Your task to perform on an android device: change alarm snooze length Image 0: 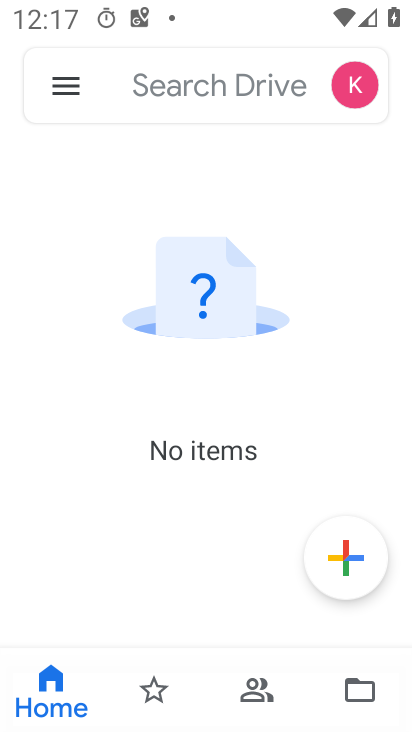
Step 0: press home button
Your task to perform on an android device: change alarm snooze length Image 1: 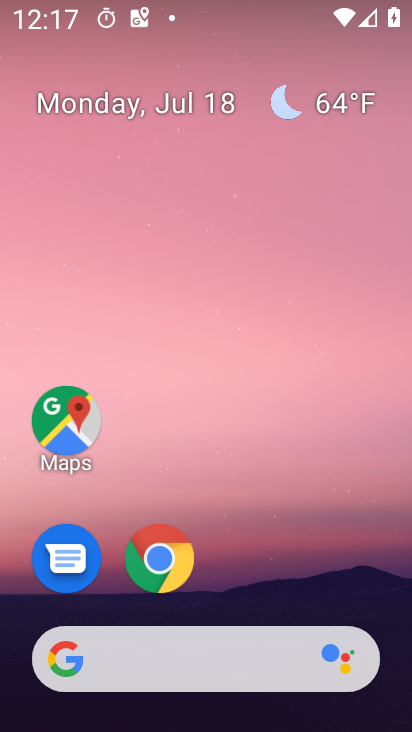
Step 1: drag from (322, 545) to (368, 182)
Your task to perform on an android device: change alarm snooze length Image 2: 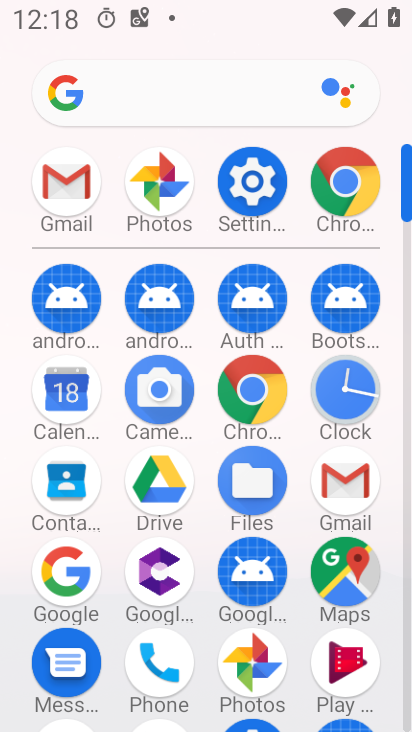
Step 2: click (363, 390)
Your task to perform on an android device: change alarm snooze length Image 3: 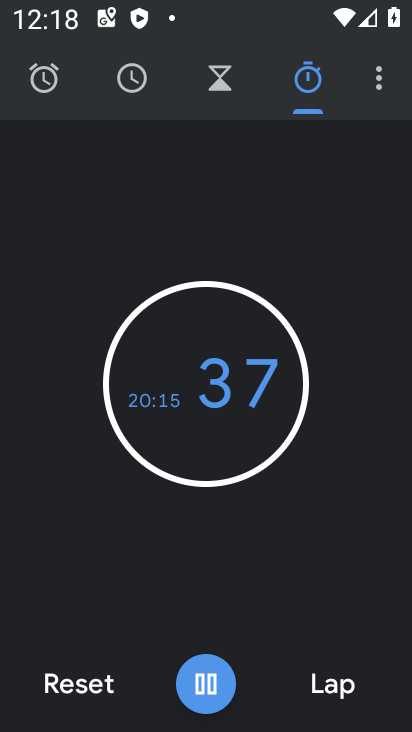
Step 3: click (382, 92)
Your task to perform on an android device: change alarm snooze length Image 4: 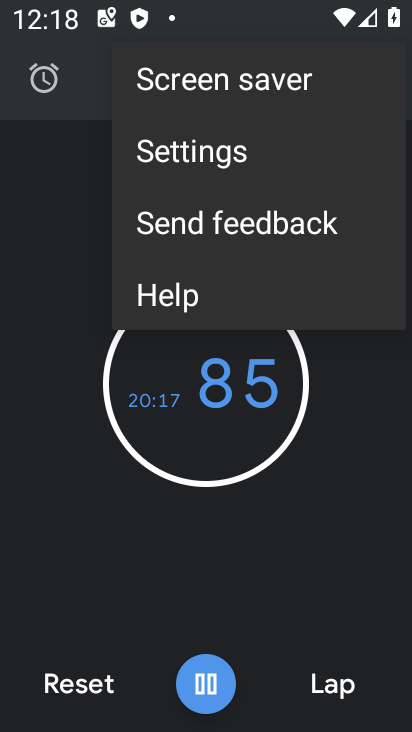
Step 4: click (300, 149)
Your task to perform on an android device: change alarm snooze length Image 5: 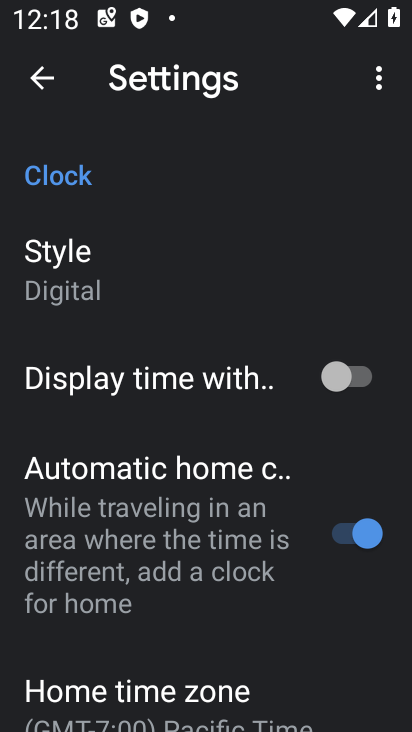
Step 5: drag from (271, 456) to (284, 339)
Your task to perform on an android device: change alarm snooze length Image 6: 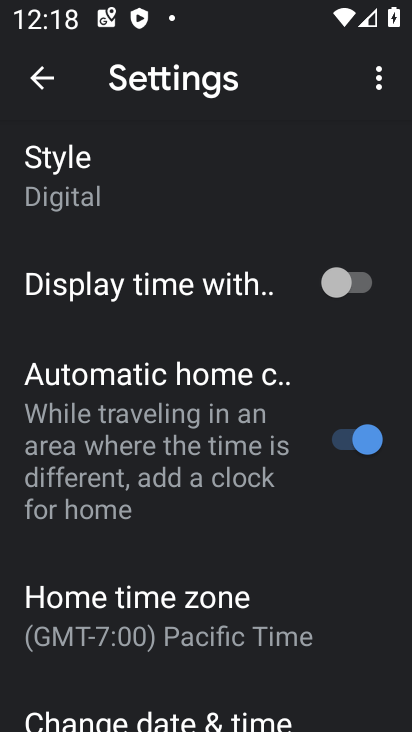
Step 6: drag from (266, 517) to (278, 431)
Your task to perform on an android device: change alarm snooze length Image 7: 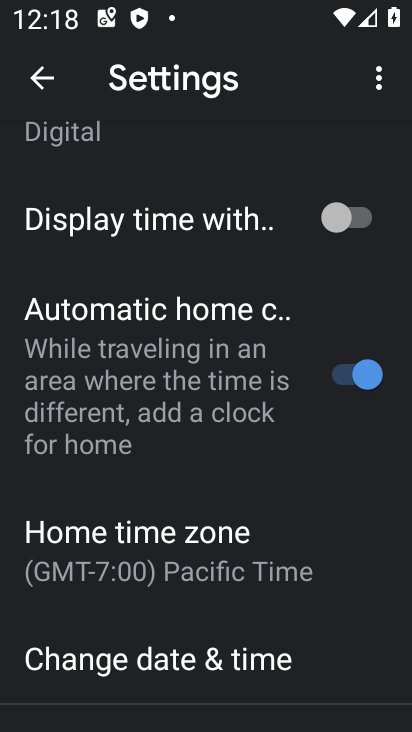
Step 7: drag from (302, 504) to (317, 422)
Your task to perform on an android device: change alarm snooze length Image 8: 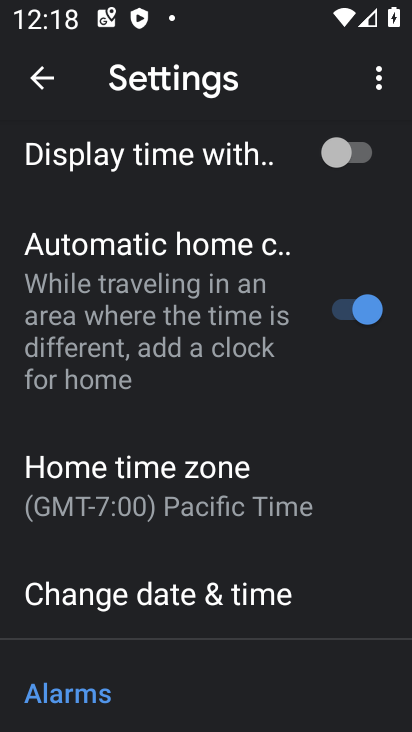
Step 8: drag from (357, 542) to (368, 460)
Your task to perform on an android device: change alarm snooze length Image 9: 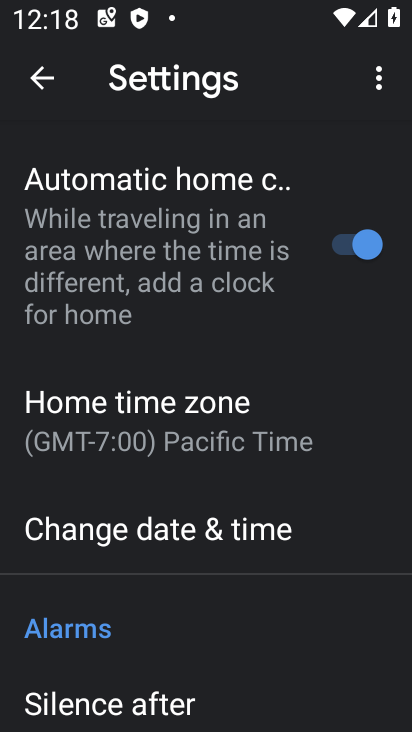
Step 9: drag from (369, 555) to (371, 479)
Your task to perform on an android device: change alarm snooze length Image 10: 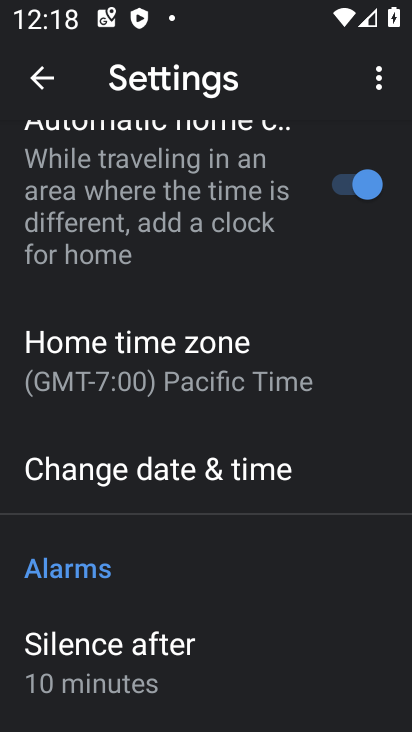
Step 10: drag from (359, 547) to (357, 454)
Your task to perform on an android device: change alarm snooze length Image 11: 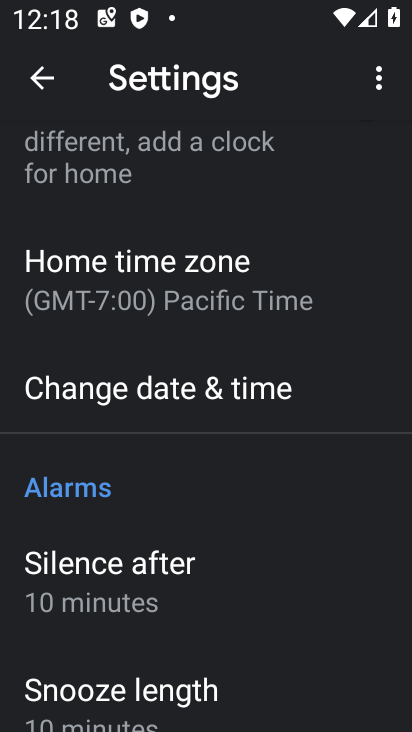
Step 11: drag from (323, 539) to (334, 469)
Your task to perform on an android device: change alarm snooze length Image 12: 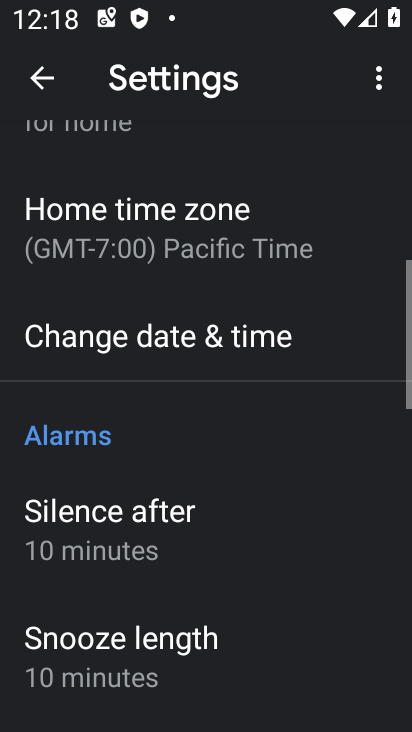
Step 12: drag from (324, 546) to (327, 459)
Your task to perform on an android device: change alarm snooze length Image 13: 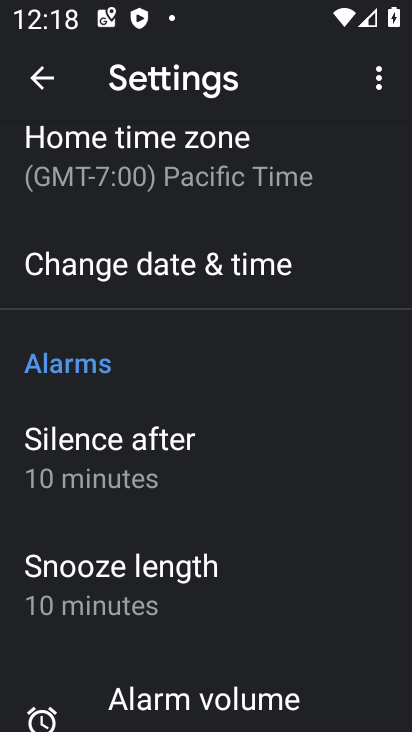
Step 13: drag from (340, 553) to (339, 450)
Your task to perform on an android device: change alarm snooze length Image 14: 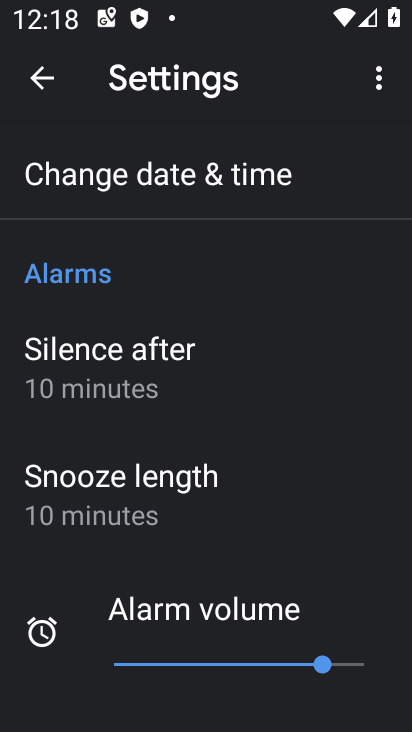
Step 14: click (263, 507)
Your task to perform on an android device: change alarm snooze length Image 15: 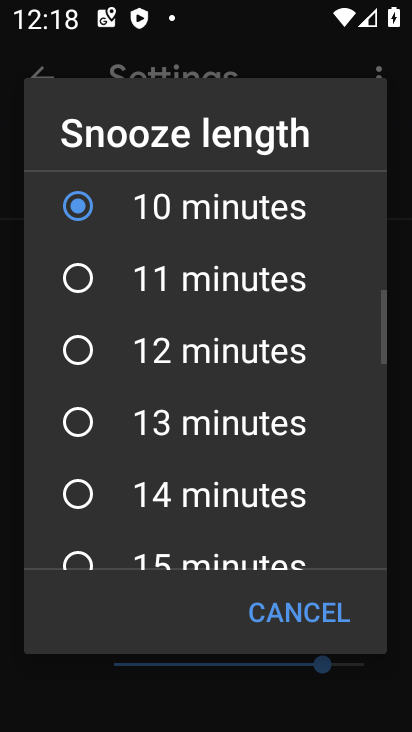
Step 15: click (305, 426)
Your task to perform on an android device: change alarm snooze length Image 16: 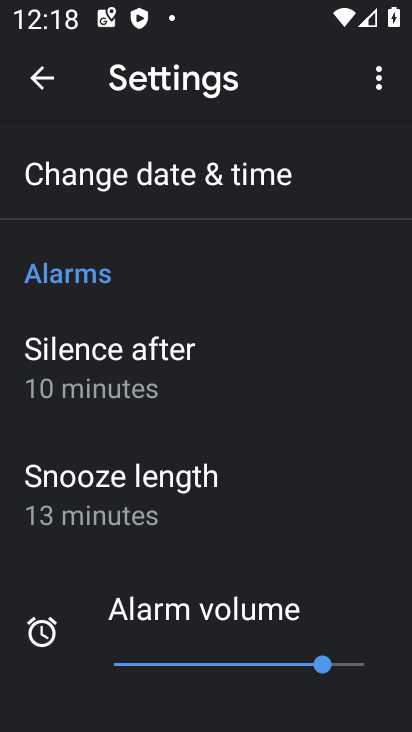
Step 16: task complete